Your task to perform on an android device: toggle location history Image 0: 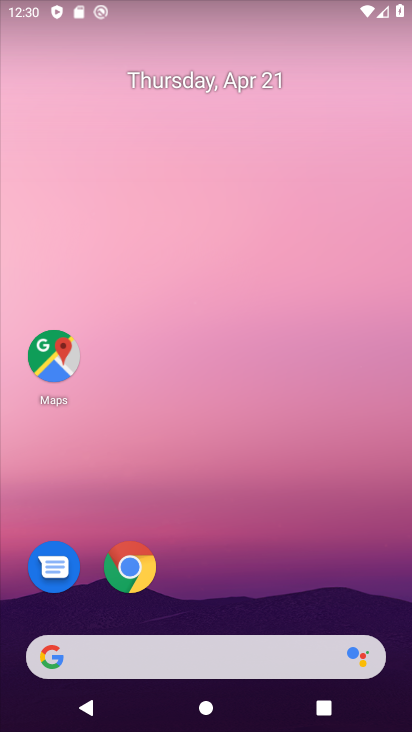
Step 0: drag from (205, 631) to (237, 339)
Your task to perform on an android device: toggle location history Image 1: 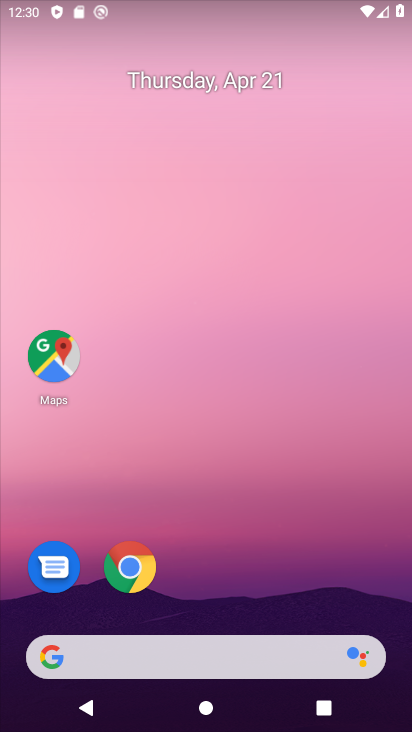
Step 1: drag from (215, 565) to (246, 373)
Your task to perform on an android device: toggle location history Image 2: 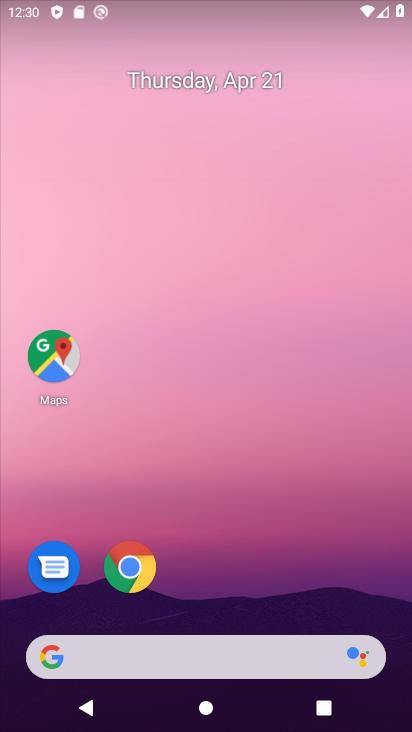
Step 2: drag from (239, 636) to (312, 269)
Your task to perform on an android device: toggle location history Image 3: 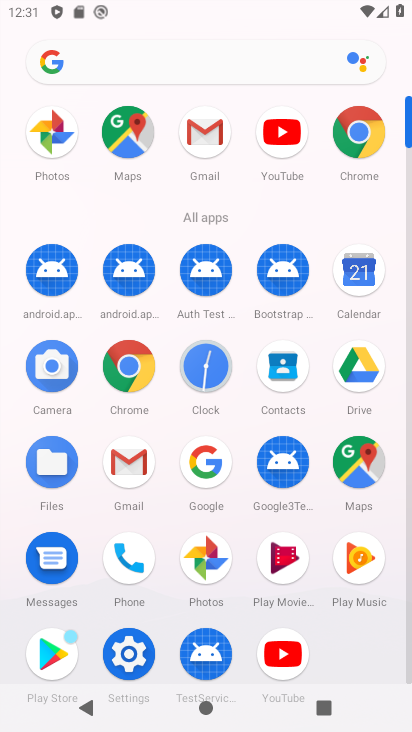
Step 3: click (122, 652)
Your task to perform on an android device: toggle location history Image 4: 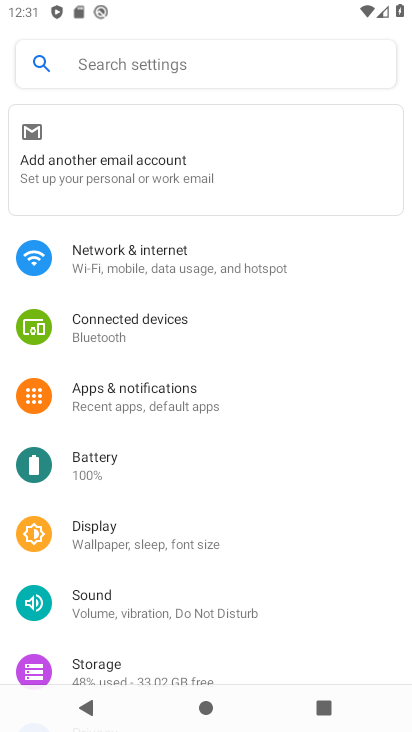
Step 4: drag from (181, 635) to (262, 267)
Your task to perform on an android device: toggle location history Image 5: 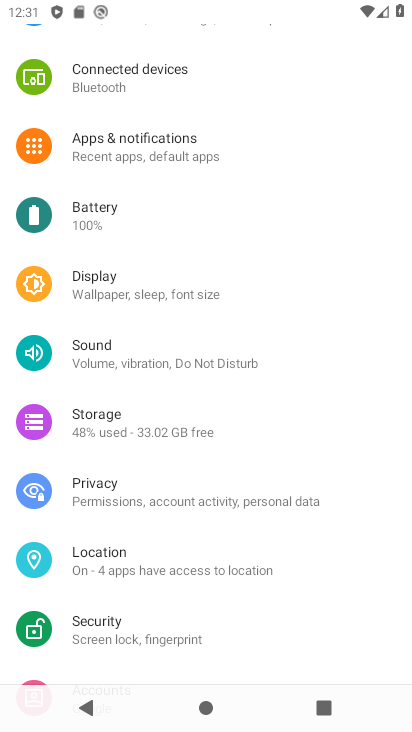
Step 5: click (151, 551)
Your task to perform on an android device: toggle location history Image 6: 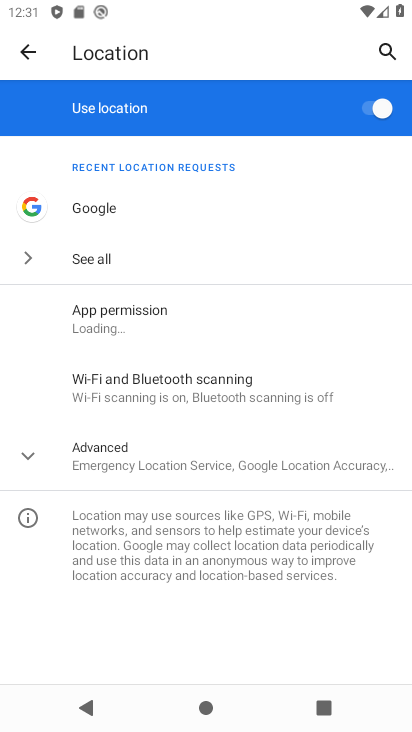
Step 6: click (211, 468)
Your task to perform on an android device: toggle location history Image 7: 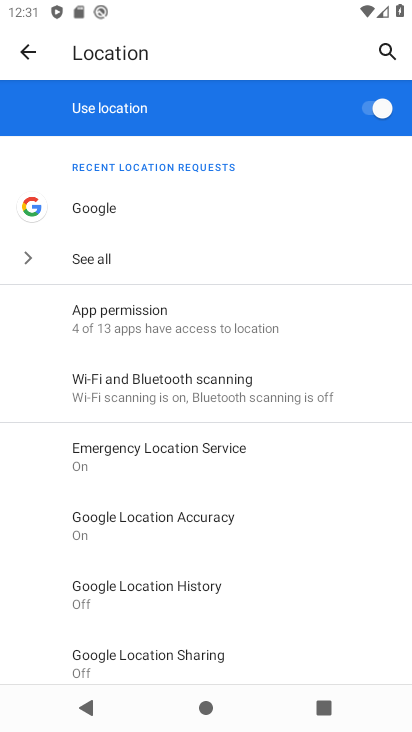
Step 7: drag from (177, 607) to (217, 436)
Your task to perform on an android device: toggle location history Image 8: 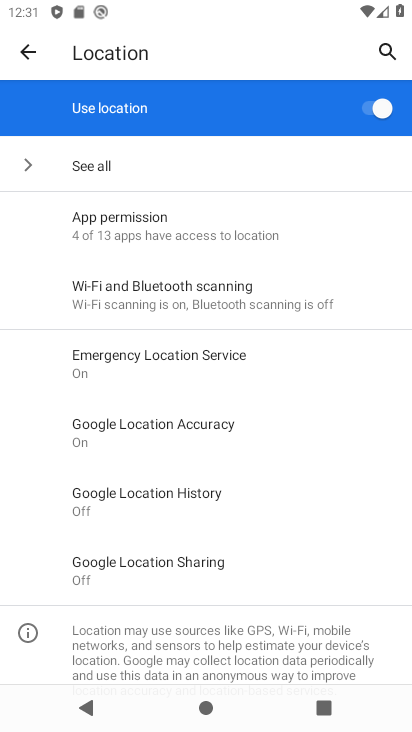
Step 8: click (170, 501)
Your task to perform on an android device: toggle location history Image 9: 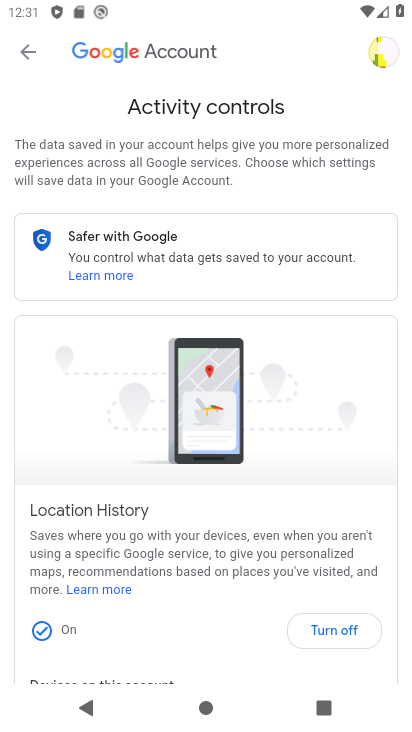
Step 9: click (360, 632)
Your task to perform on an android device: toggle location history Image 10: 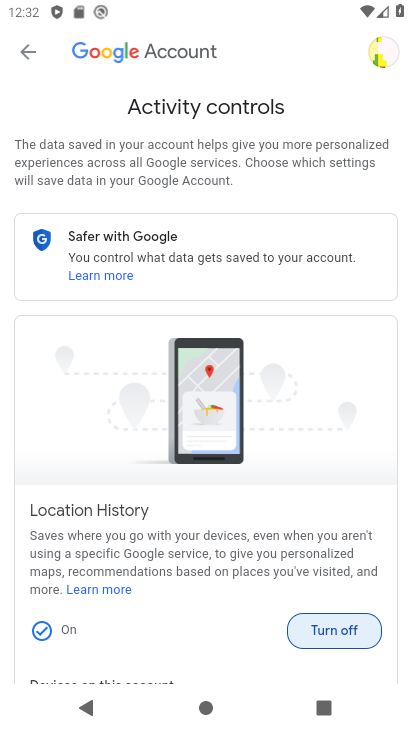
Step 10: click (343, 630)
Your task to perform on an android device: toggle location history Image 11: 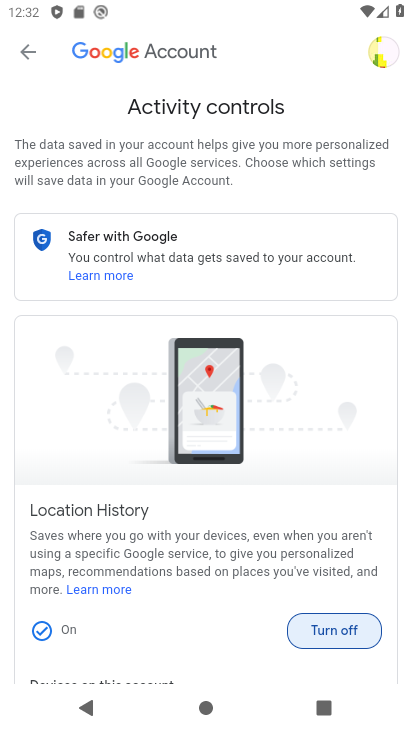
Step 11: click (342, 628)
Your task to perform on an android device: toggle location history Image 12: 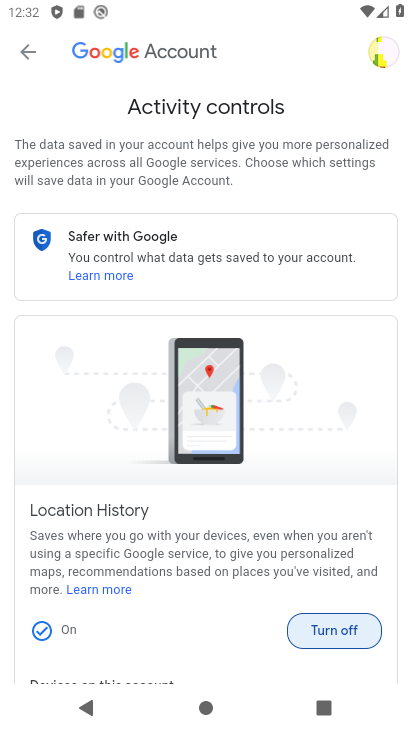
Step 12: click (337, 641)
Your task to perform on an android device: toggle location history Image 13: 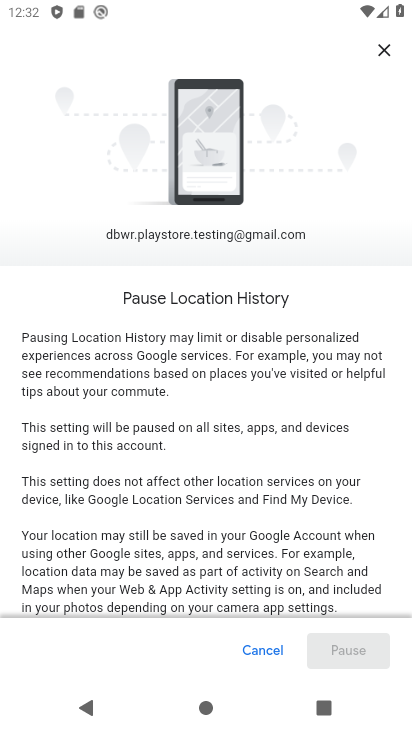
Step 13: drag from (229, 516) to (316, 213)
Your task to perform on an android device: toggle location history Image 14: 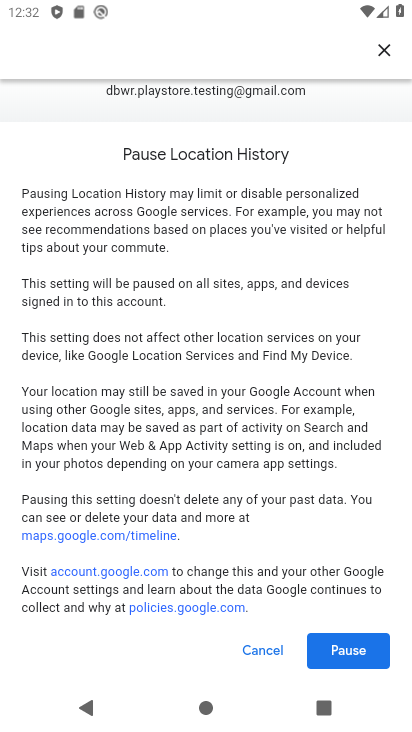
Step 14: click (356, 661)
Your task to perform on an android device: toggle location history Image 15: 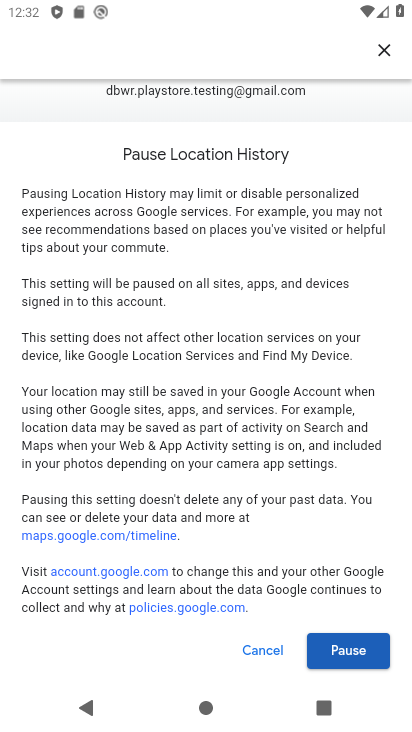
Step 15: click (358, 655)
Your task to perform on an android device: toggle location history Image 16: 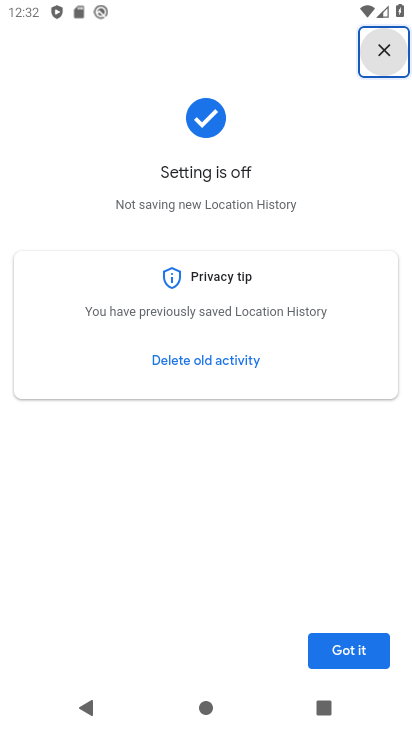
Step 16: click (339, 656)
Your task to perform on an android device: toggle location history Image 17: 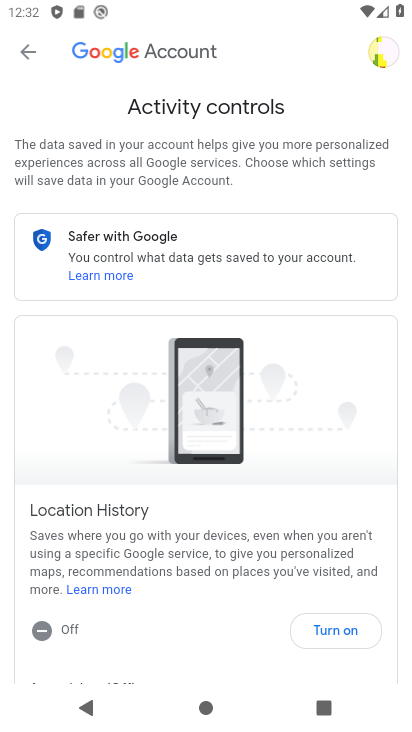
Step 17: task complete